Your task to perform on an android device: turn on javascript in the chrome app Image 0: 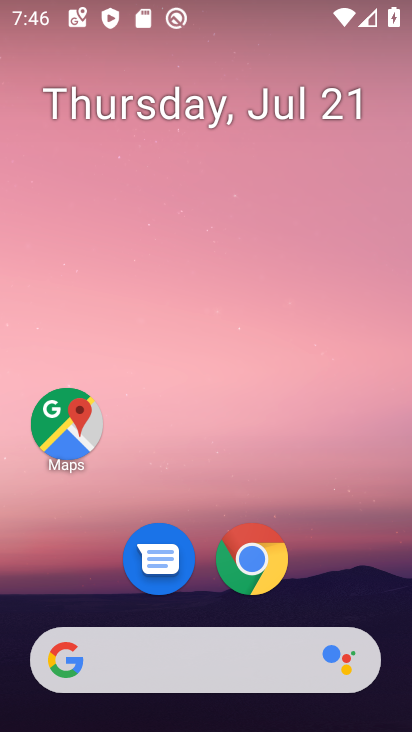
Step 0: drag from (235, 645) to (125, 196)
Your task to perform on an android device: turn on javascript in the chrome app Image 1: 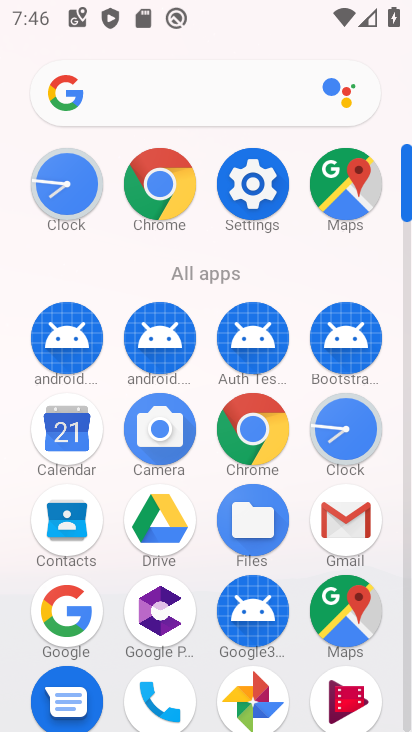
Step 1: click (263, 432)
Your task to perform on an android device: turn on javascript in the chrome app Image 2: 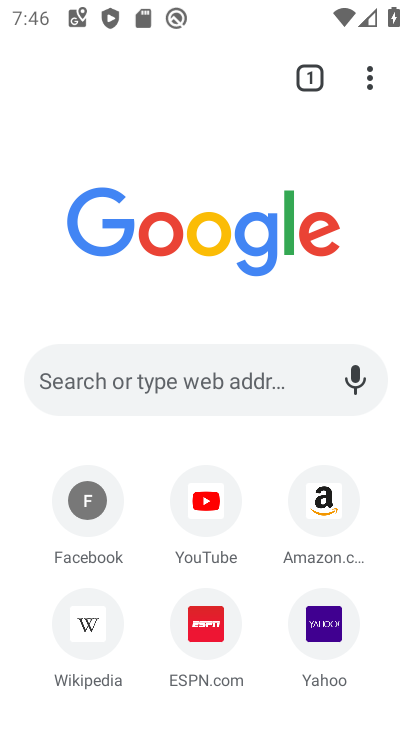
Step 2: click (376, 92)
Your task to perform on an android device: turn on javascript in the chrome app Image 3: 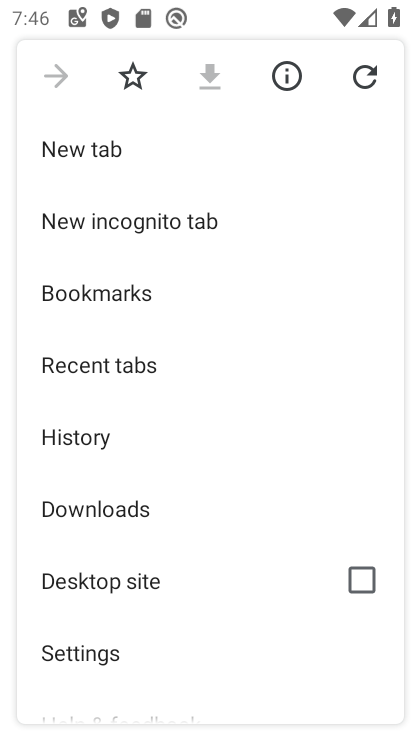
Step 3: drag from (127, 584) to (265, 135)
Your task to perform on an android device: turn on javascript in the chrome app Image 4: 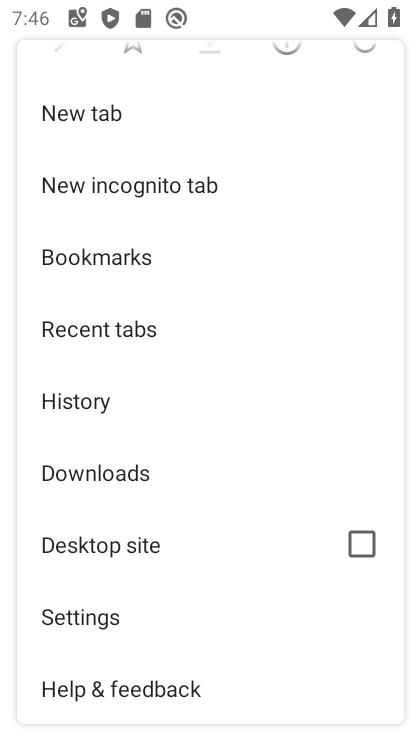
Step 4: click (87, 629)
Your task to perform on an android device: turn on javascript in the chrome app Image 5: 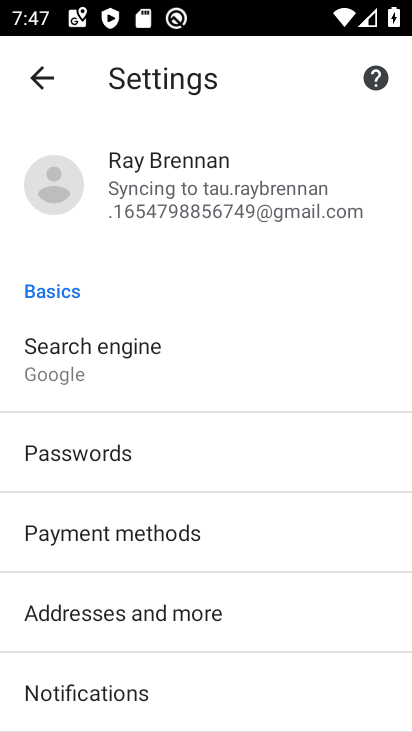
Step 5: drag from (125, 636) to (282, 217)
Your task to perform on an android device: turn on javascript in the chrome app Image 6: 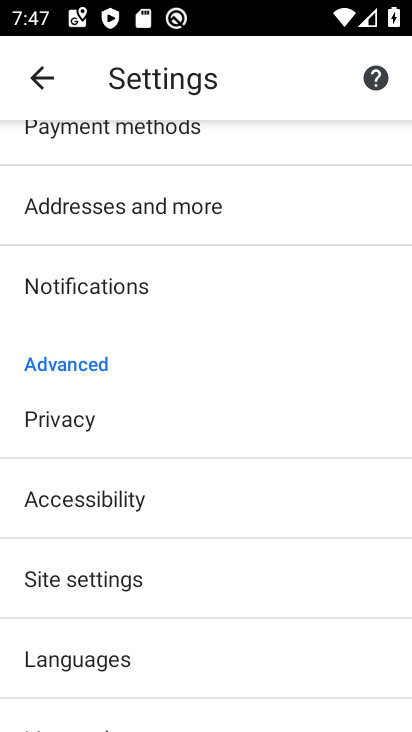
Step 6: click (140, 584)
Your task to perform on an android device: turn on javascript in the chrome app Image 7: 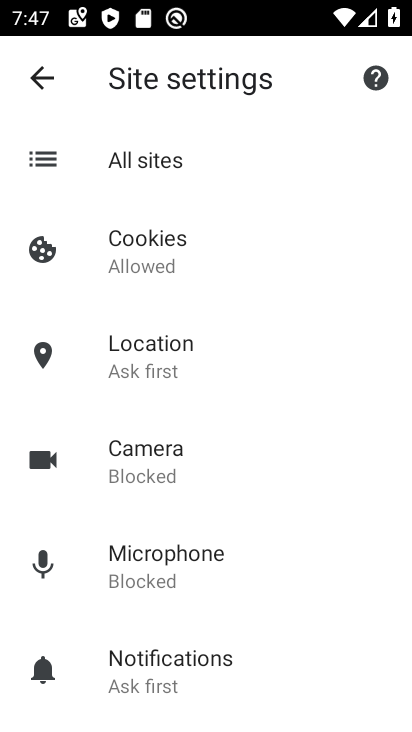
Step 7: drag from (143, 579) to (201, 219)
Your task to perform on an android device: turn on javascript in the chrome app Image 8: 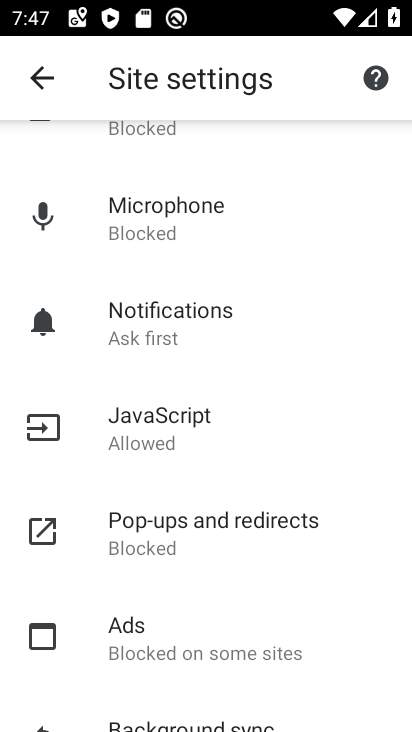
Step 8: click (190, 435)
Your task to perform on an android device: turn on javascript in the chrome app Image 9: 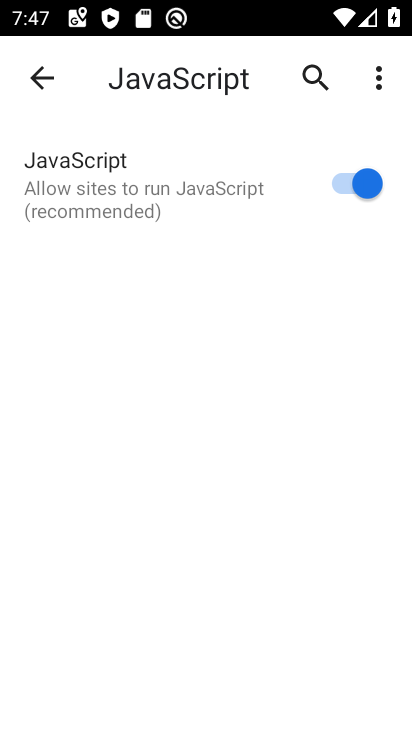
Step 9: task complete